Your task to perform on an android device: uninstall "Lyft - Rideshare, Bikes, Scooters & Transit" Image 0: 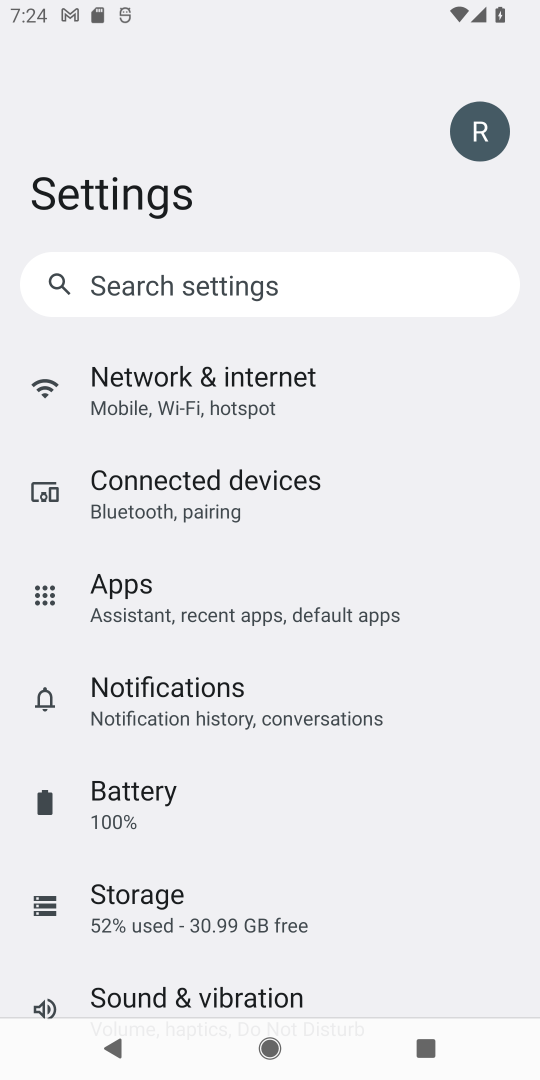
Step 0: press home button
Your task to perform on an android device: uninstall "Lyft - Rideshare, Bikes, Scooters & Transit" Image 1: 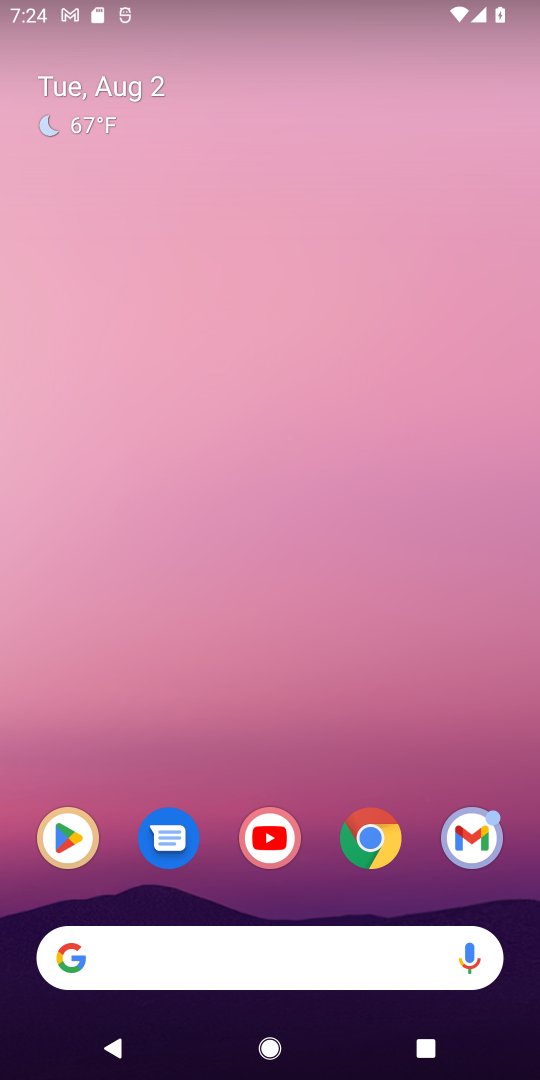
Step 1: click (56, 849)
Your task to perform on an android device: uninstall "Lyft - Rideshare, Bikes, Scooters & Transit" Image 2: 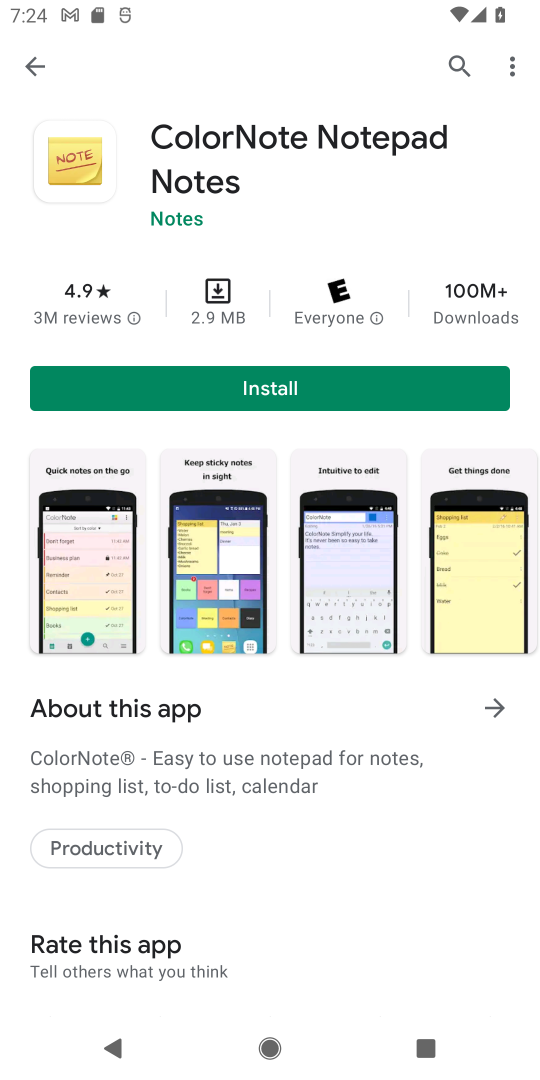
Step 2: click (452, 55)
Your task to perform on an android device: uninstall "Lyft - Rideshare, Bikes, Scooters & Transit" Image 3: 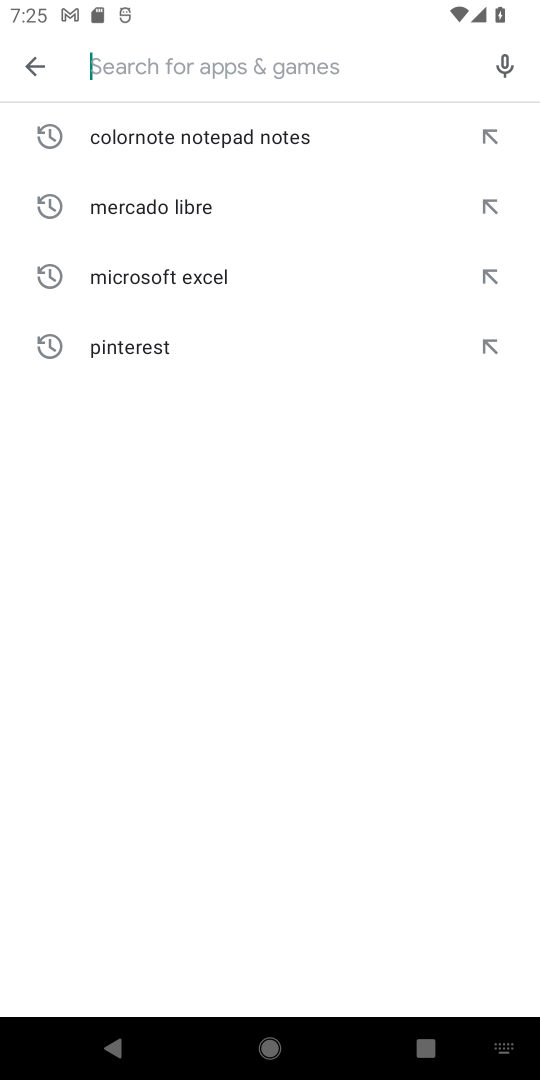
Step 3: type "lyft - rideshare, bikes, scooters & transit"
Your task to perform on an android device: uninstall "Lyft - Rideshare, Bikes, Scooters & Transit" Image 4: 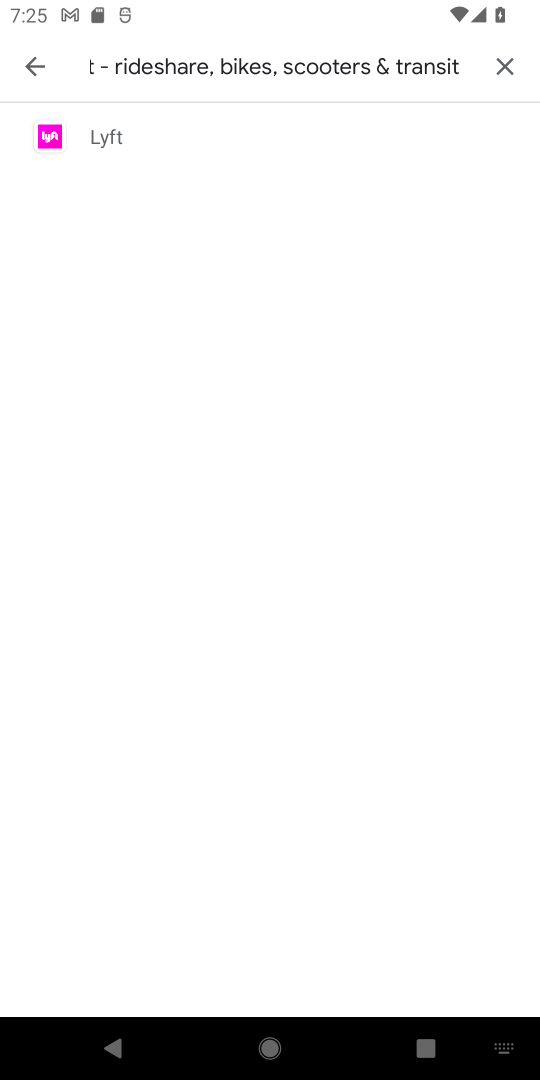
Step 4: click (150, 123)
Your task to perform on an android device: uninstall "Lyft - Rideshare, Bikes, Scooters & Transit" Image 5: 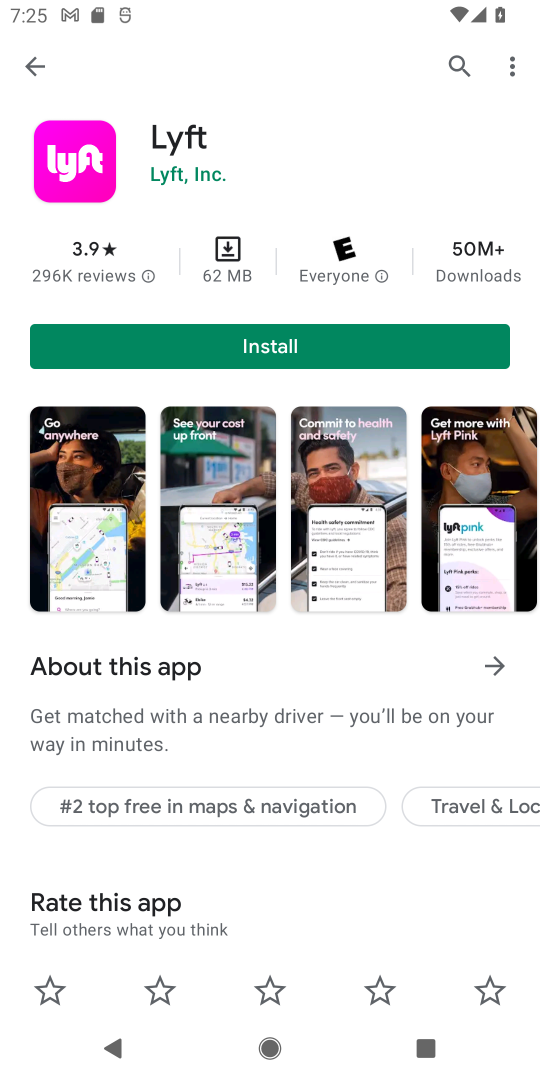
Step 5: task complete